Your task to perform on an android device: Go to privacy settings Image 0: 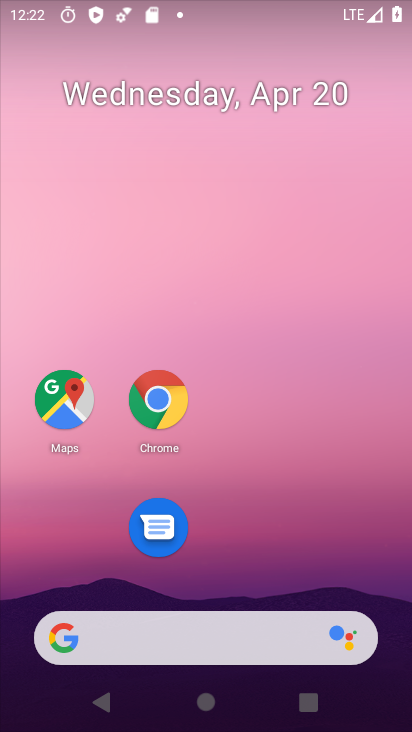
Step 0: drag from (235, 679) to (147, 298)
Your task to perform on an android device: Go to privacy settings Image 1: 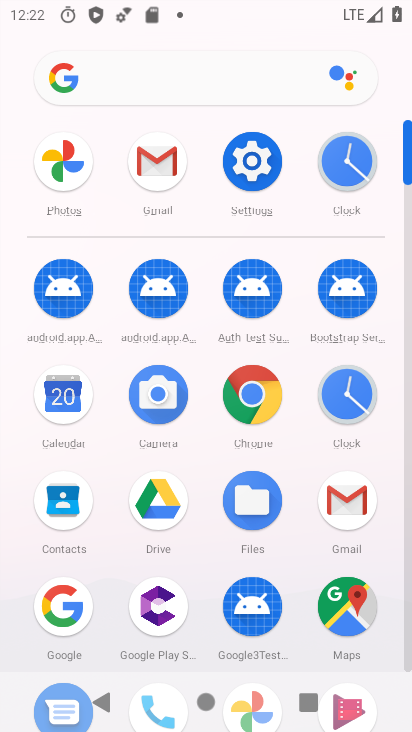
Step 1: drag from (201, 467) to (198, 295)
Your task to perform on an android device: Go to privacy settings Image 2: 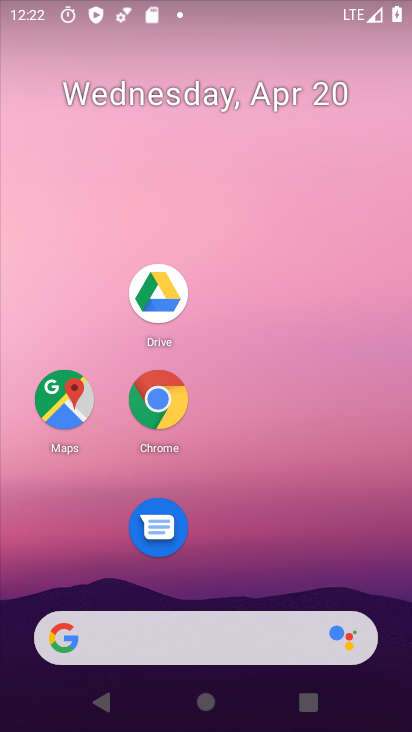
Step 2: drag from (158, 293) to (165, 0)
Your task to perform on an android device: Go to privacy settings Image 3: 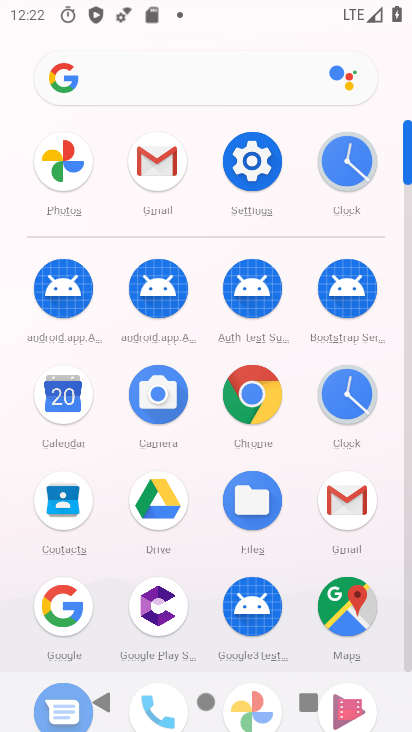
Step 3: drag from (199, 472) to (158, 229)
Your task to perform on an android device: Go to privacy settings Image 4: 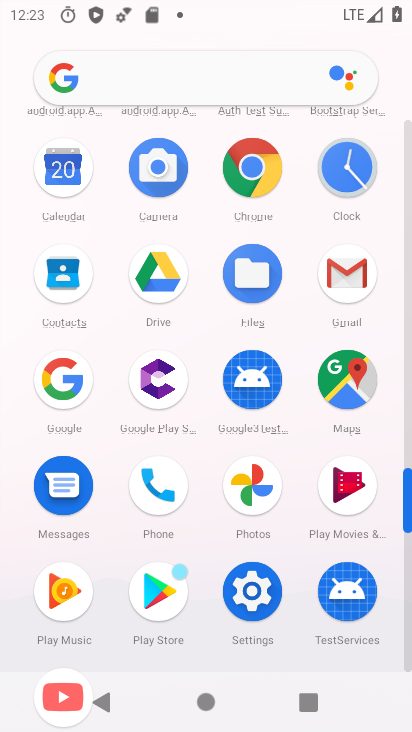
Step 4: click (243, 599)
Your task to perform on an android device: Go to privacy settings Image 5: 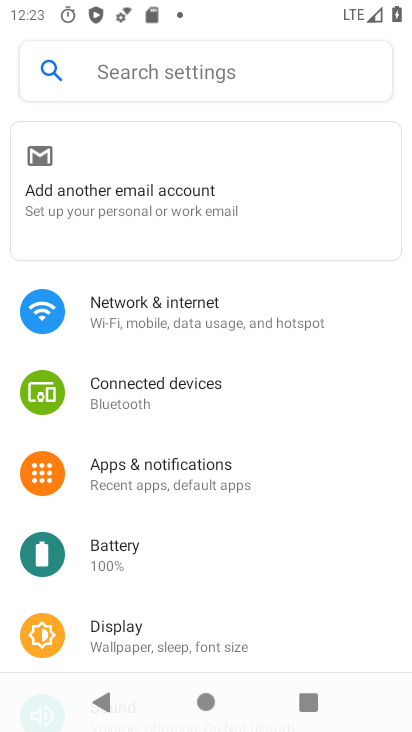
Step 5: drag from (195, 584) to (216, 263)
Your task to perform on an android device: Go to privacy settings Image 6: 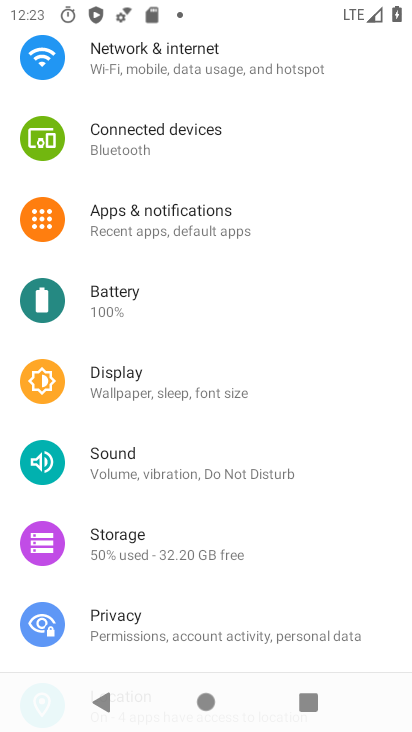
Step 6: click (141, 608)
Your task to perform on an android device: Go to privacy settings Image 7: 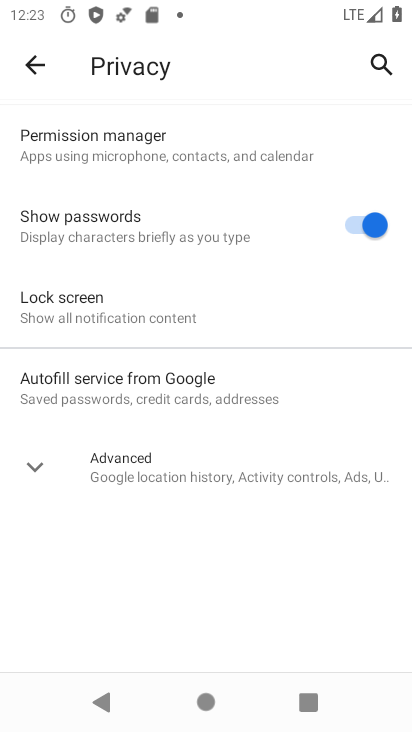
Step 7: click (107, 457)
Your task to perform on an android device: Go to privacy settings Image 8: 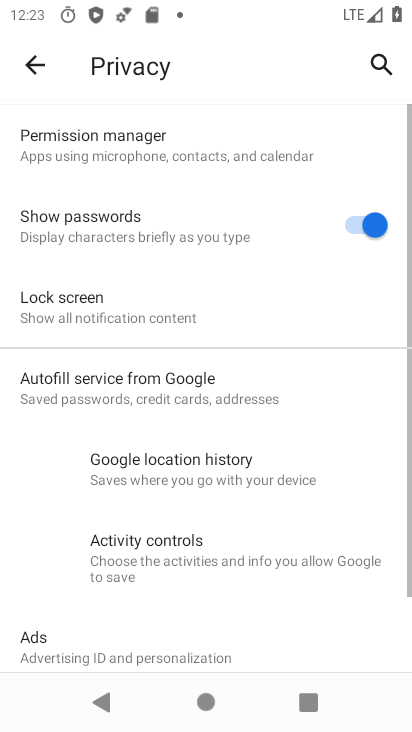
Step 8: task complete